Your task to perform on an android device: turn off wifi Image 0: 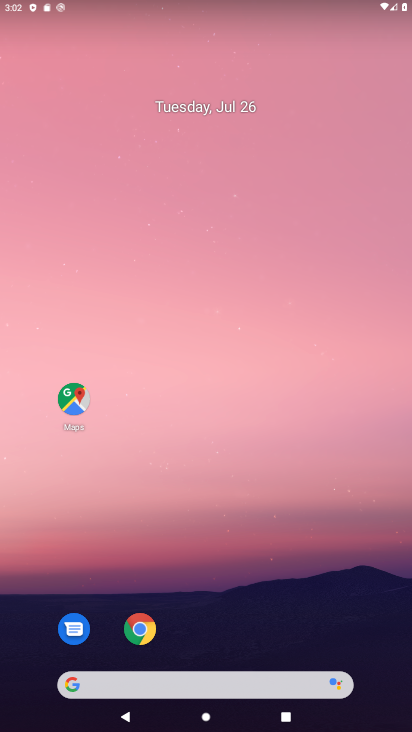
Step 0: drag from (232, 707) to (232, 88)
Your task to perform on an android device: turn off wifi Image 1: 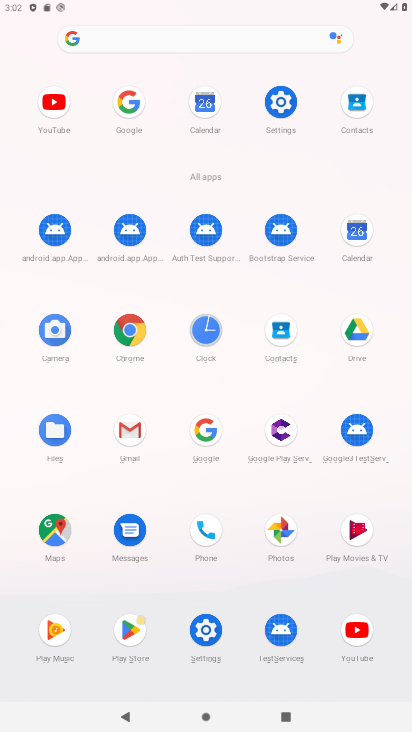
Step 1: click (283, 97)
Your task to perform on an android device: turn off wifi Image 2: 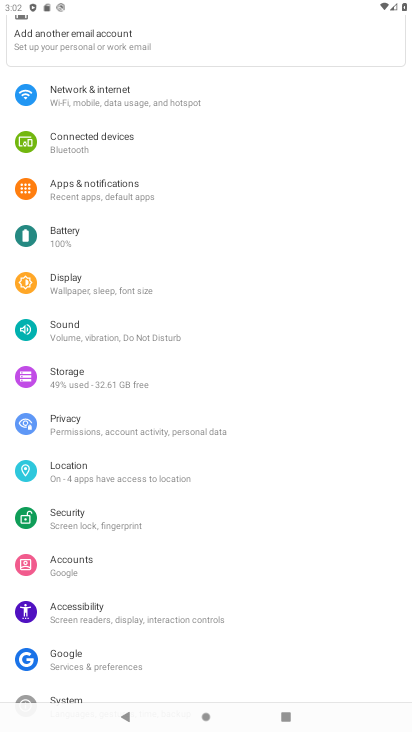
Step 2: click (124, 99)
Your task to perform on an android device: turn off wifi Image 3: 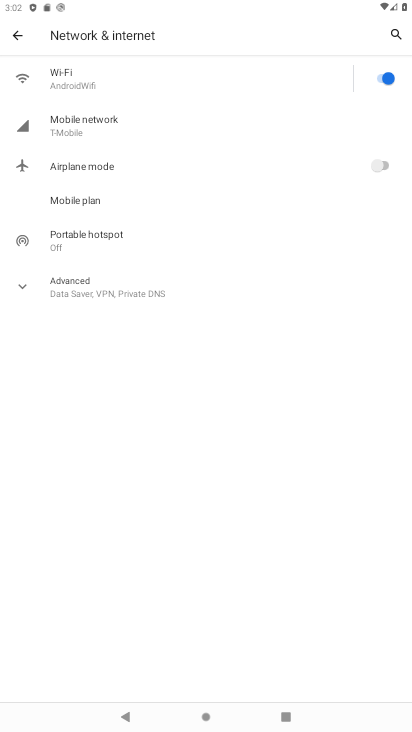
Step 3: click (388, 68)
Your task to perform on an android device: turn off wifi Image 4: 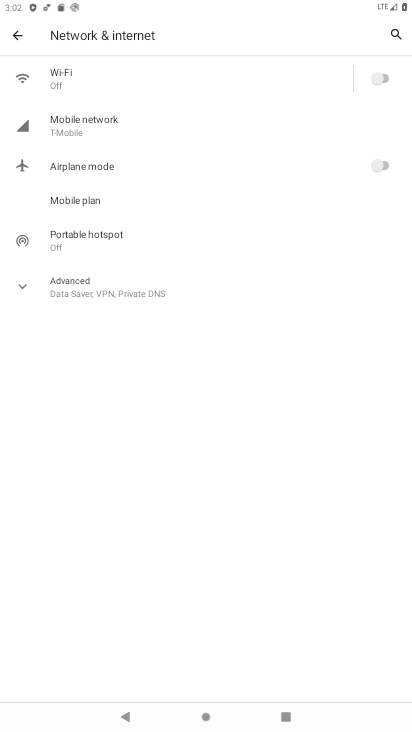
Step 4: task complete